Your task to perform on an android device: Show me the alarms in the clock app Image 0: 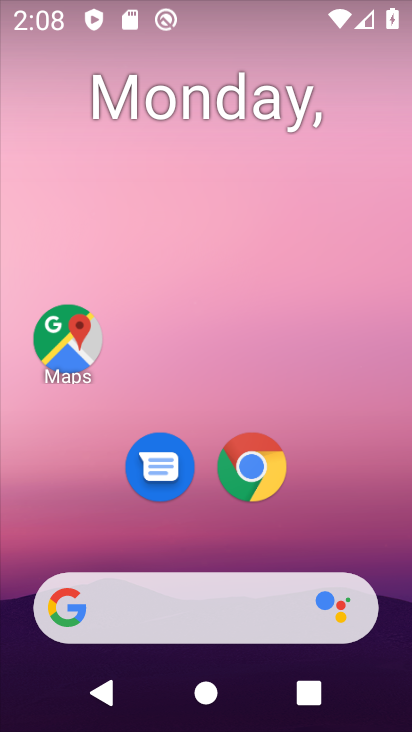
Step 0: click (319, 197)
Your task to perform on an android device: Show me the alarms in the clock app Image 1: 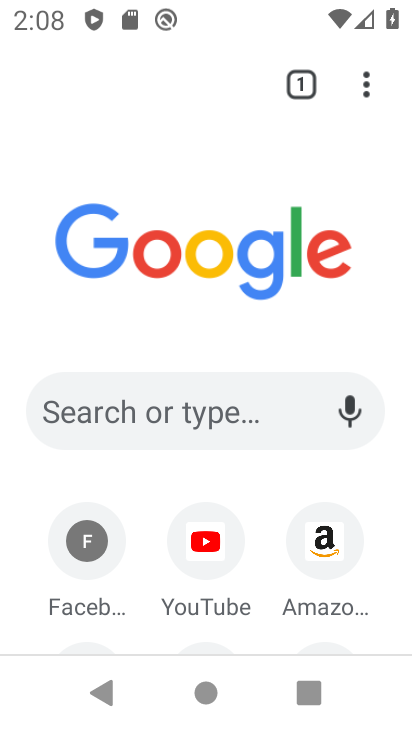
Step 1: press home button
Your task to perform on an android device: Show me the alarms in the clock app Image 2: 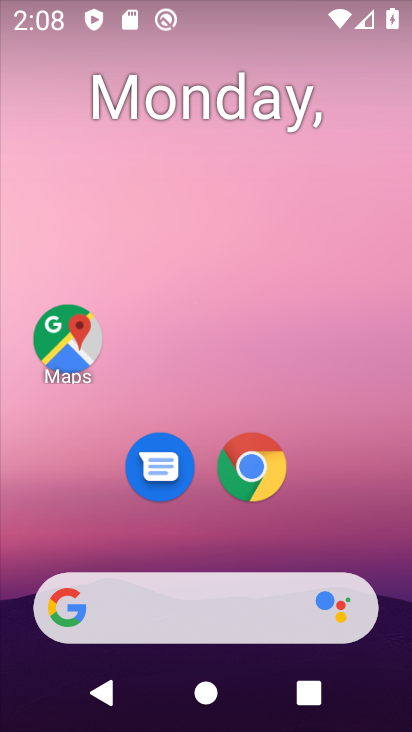
Step 2: drag from (385, 549) to (336, 142)
Your task to perform on an android device: Show me the alarms in the clock app Image 3: 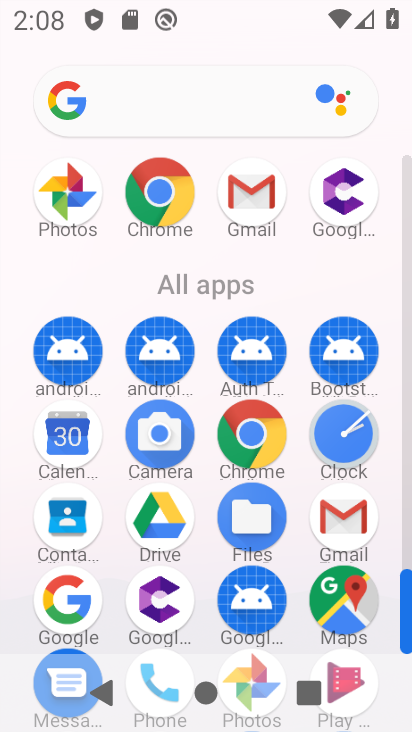
Step 3: click (360, 421)
Your task to perform on an android device: Show me the alarms in the clock app Image 4: 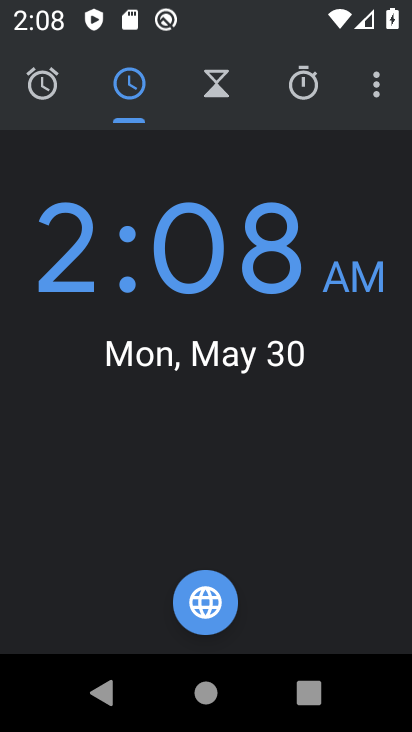
Step 4: click (48, 83)
Your task to perform on an android device: Show me the alarms in the clock app Image 5: 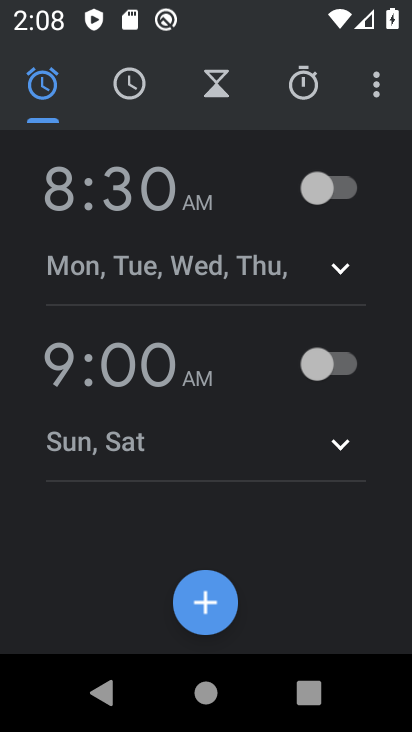
Step 5: task complete